Your task to perform on an android device: Show me recent news Image 0: 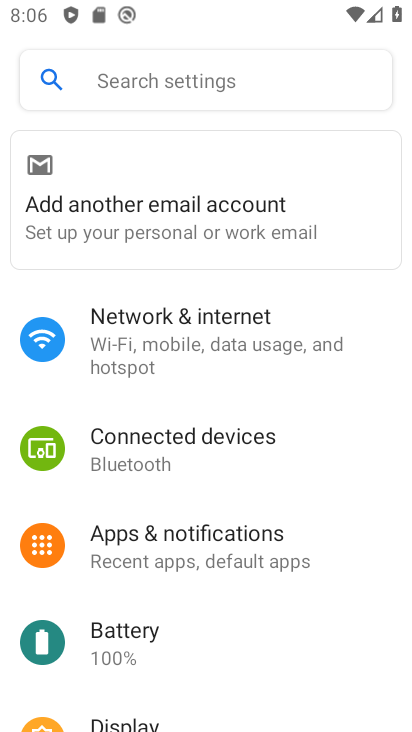
Step 0: press home button
Your task to perform on an android device: Show me recent news Image 1: 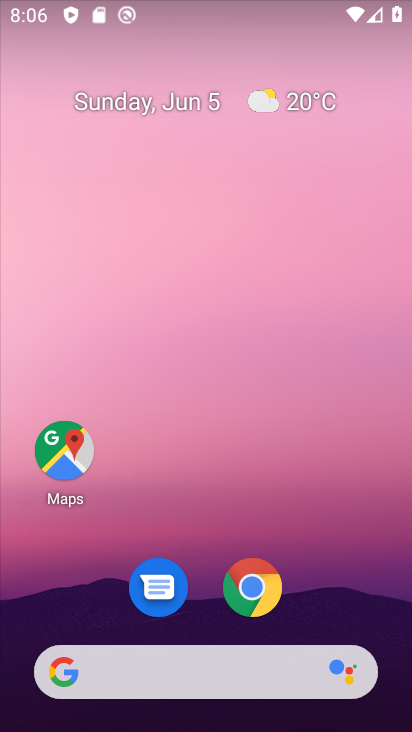
Step 1: drag from (202, 582) to (244, 326)
Your task to perform on an android device: Show me recent news Image 2: 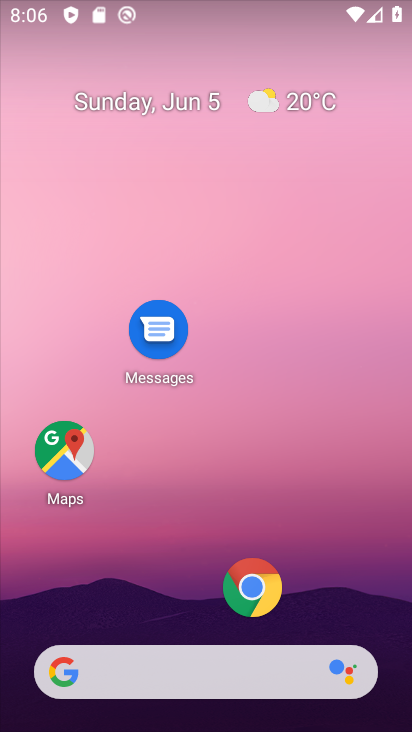
Step 2: drag from (150, 608) to (168, 146)
Your task to perform on an android device: Show me recent news Image 3: 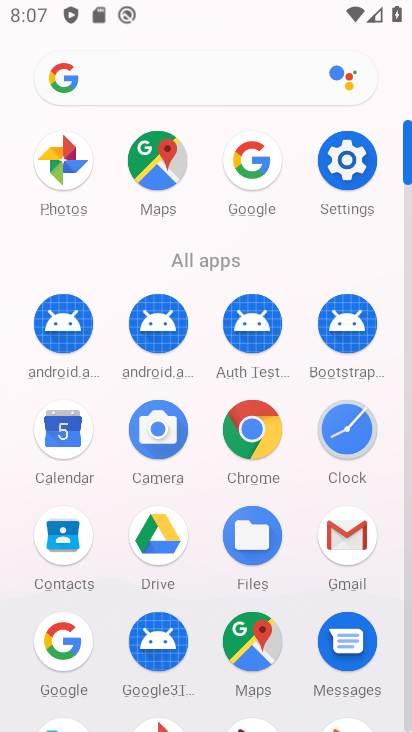
Step 3: drag from (161, 544) to (194, 271)
Your task to perform on an android device: Show me recent news Image 4: 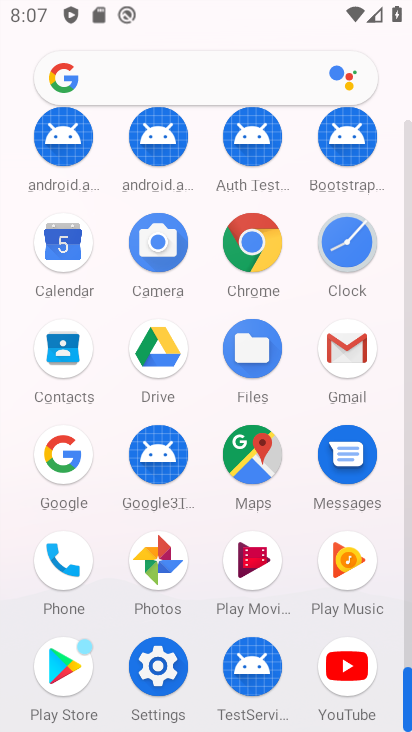
Step 4: click (77, 471)
Your task to perform on an android device: Show me recent news Image 5: 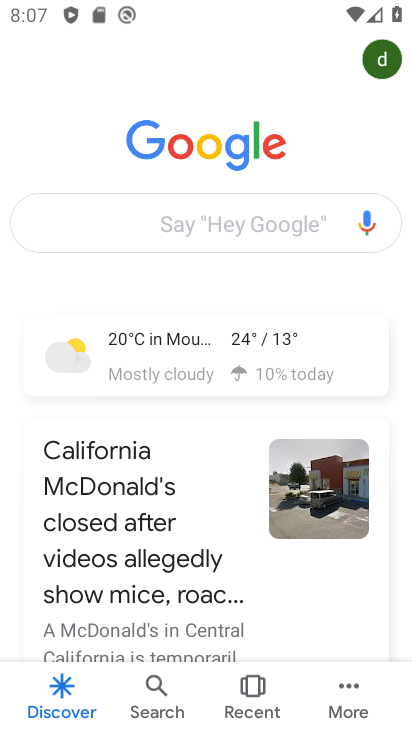
Step 5: click (184, 225)
Your task to perform on an android device: Show me recent news Image 6: 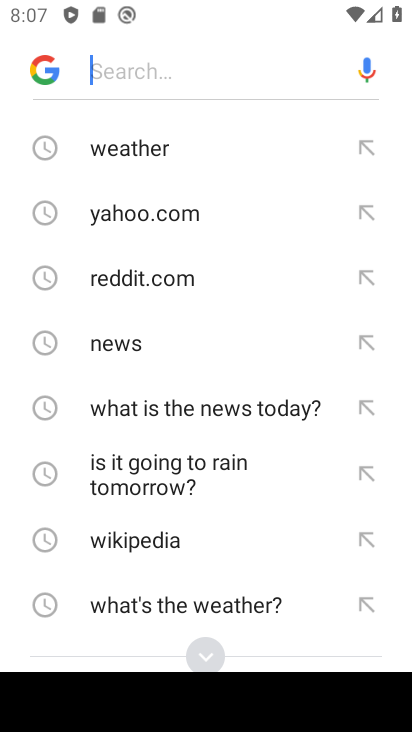
Step 6: click (167, 337)
Your task to perform on an android device: Show me recent news Image 7: 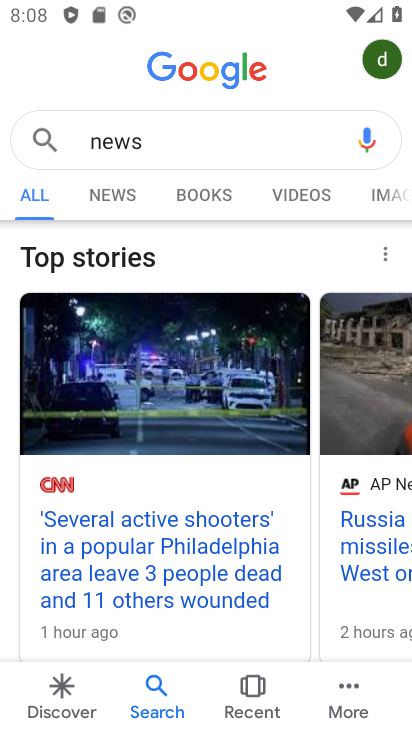
Step 7: task complete